Your task to perform on an android device: When is my next meeting? Image 0: 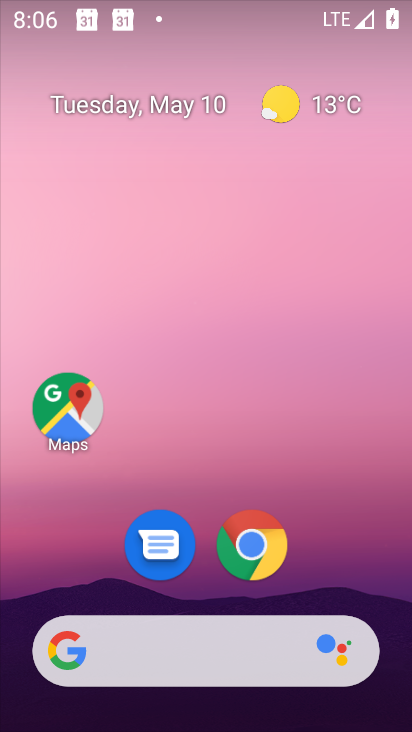
Step 0: press home button
Your task to perform on an android device: When is my next meeting? Image 1: 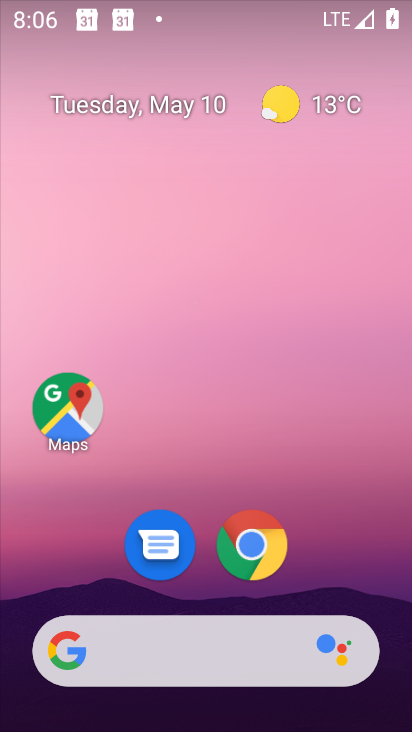
Step 1: drag from (196, 590) to (255, 105)
Your task to perform on an android device: When is my next meeting? Image 2: 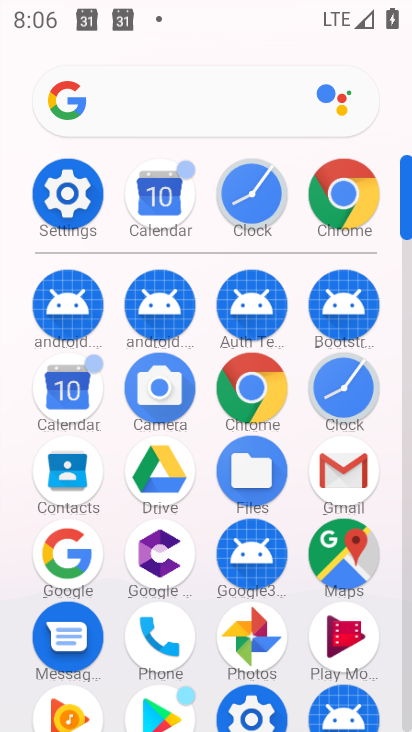
Step 2: click (69, 387)
Your task to perform on an android device: When is my next meeting? Image 3: 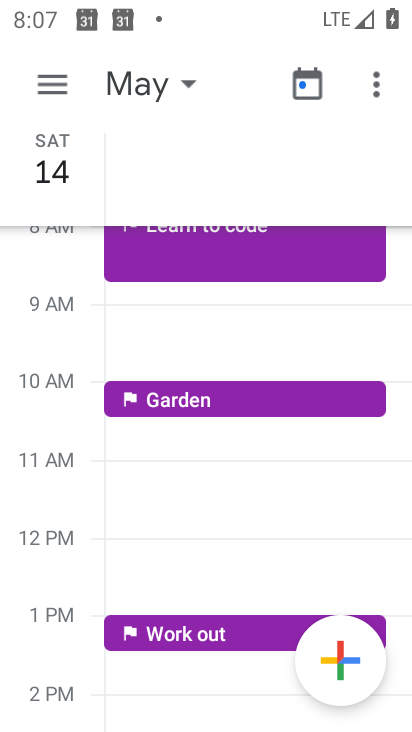
Step 3: click (70, 190)
Your task to perform on an android device: When is my next meeting? Image 4: 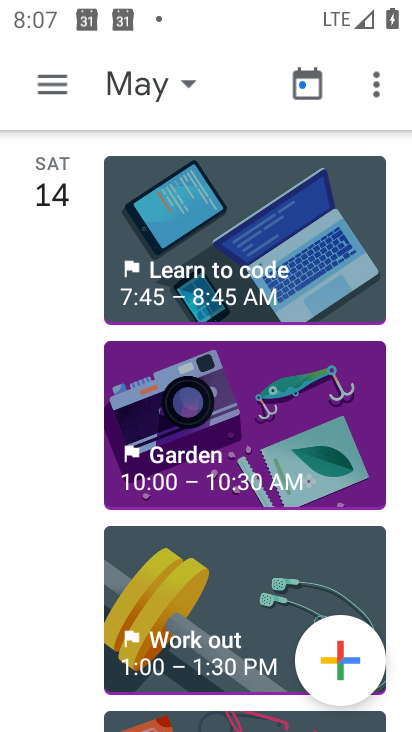
Step 4: task complete